Your task to perform on an android device: Go to Google maps Image 0: 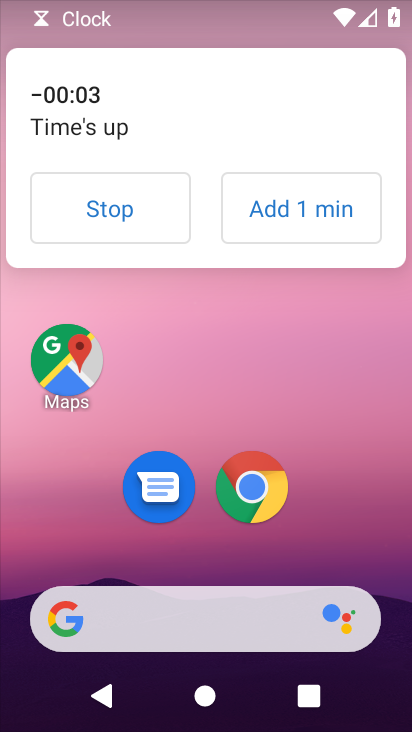
Step 0: click (126, 234)
Your task to perform on an android device: Go to Google maps Image 1: 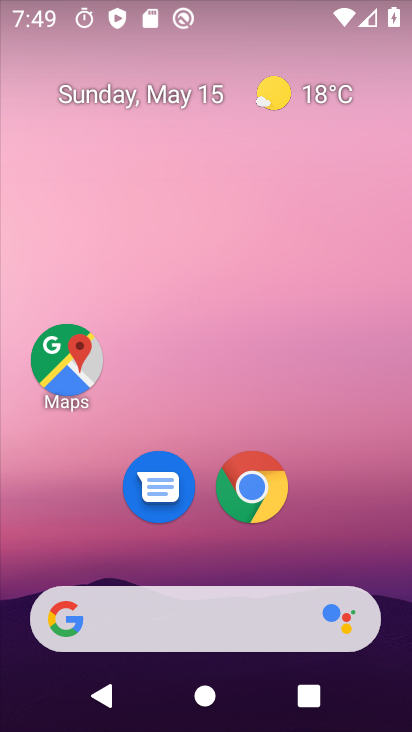
Step 1: click (60, 367)
Your task to perform on an android device: Go to Google maps Image 2: 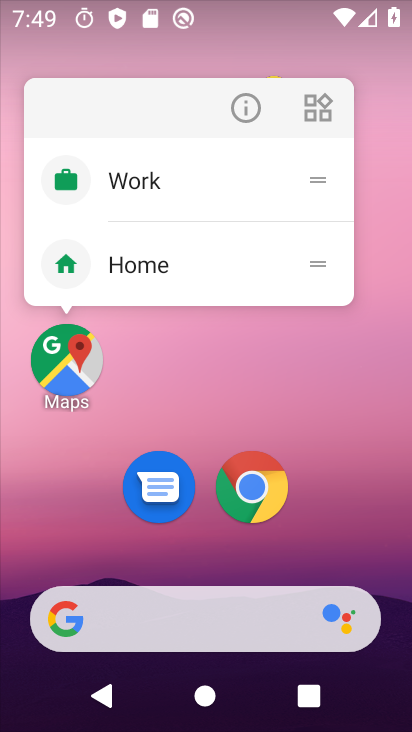
Step 2: click (184, 276)
Your task to perform on an android device: Go to Google maps Image 3: 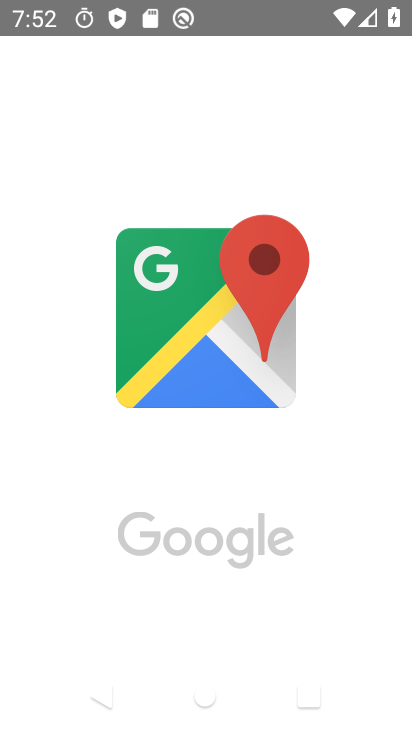
Step 3: task complete